Your task to perform on an android device: Add apple airpods pro to the cart on walmart.com, then select checkout. Image 0: 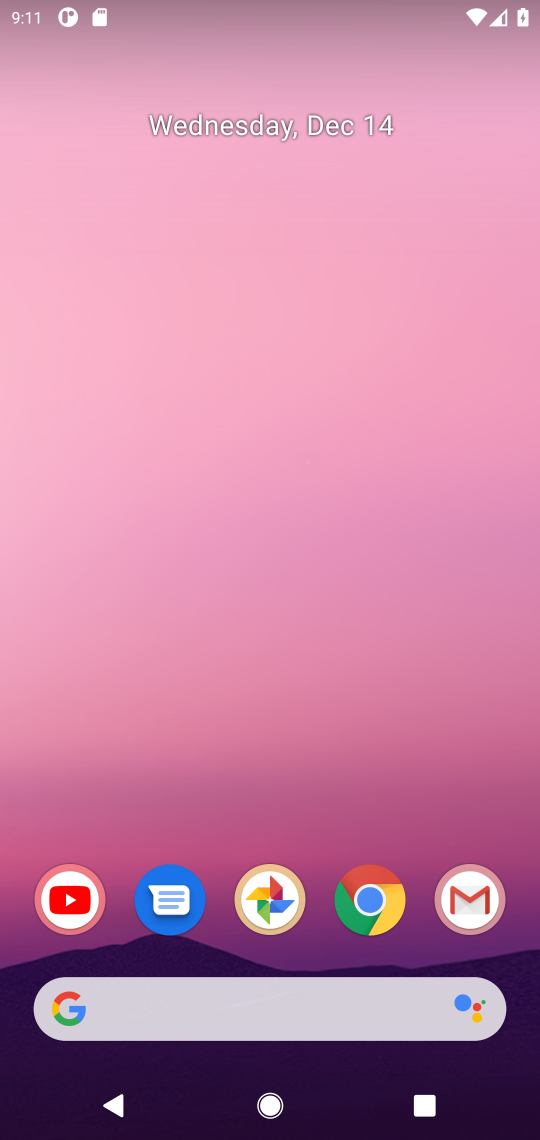
Step 0: click (225, 1023)
Your task to perform on an android device: Add apple airpods pro to the cart on walmart.com, then select checkout. Image 1: 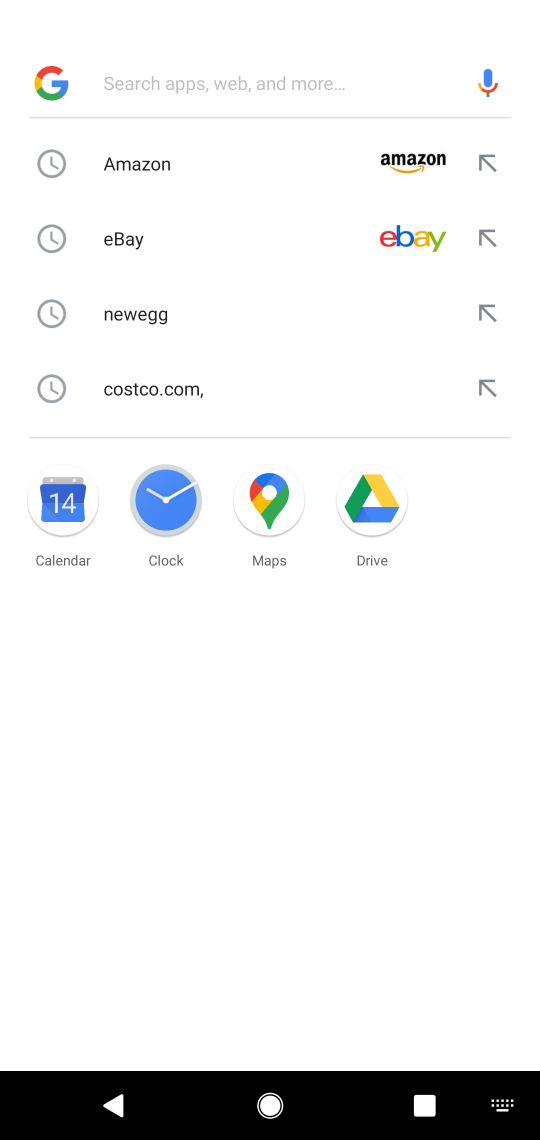
Step 1: type "walmart.com,"
Your task to perform on an android device: Add apple airpods pro to the cart on walmart.com, then select checkout. Image 2: 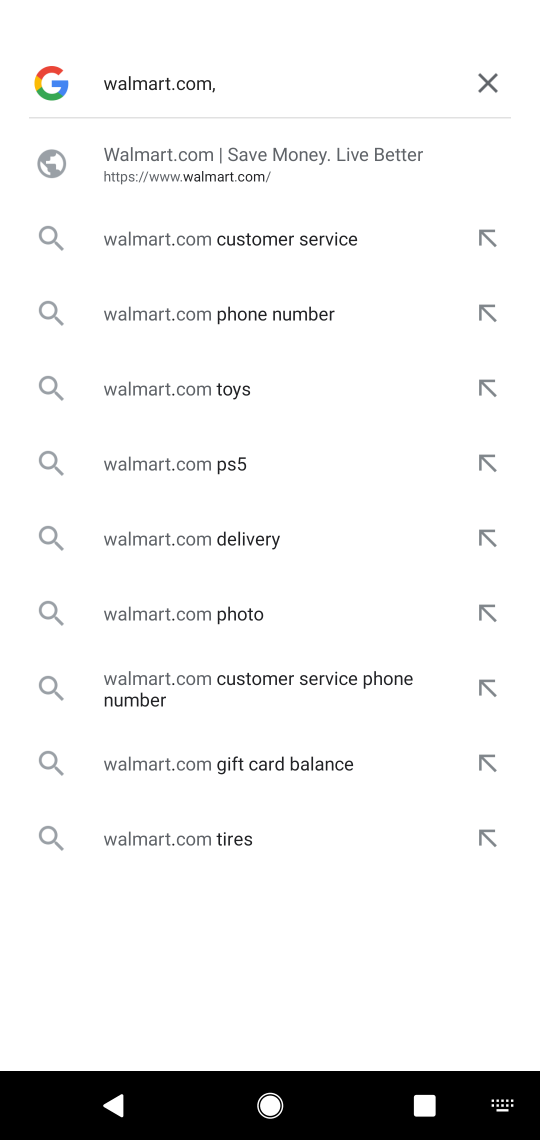
Step 2: type ""
Your task to perform on an android device: Add apple airpods pro to the cart on walmart.com, then select checkout. Image 3: 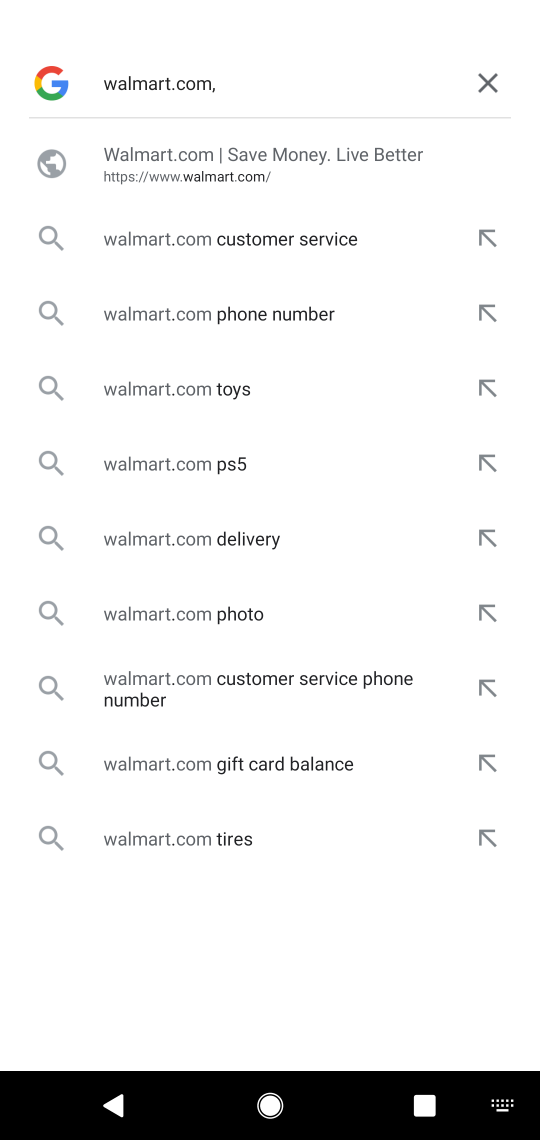
Step 3: click (228, 171)
Your task to perform on an android device: Add apple airpods pro to the cart on walmart.com, then select checkout. Image 4: 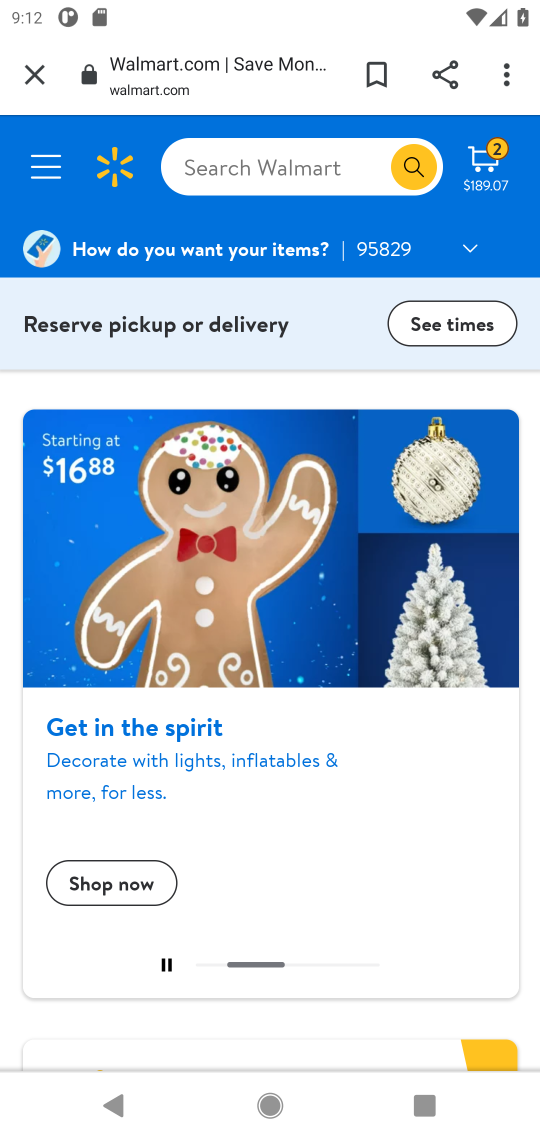
Step 4: click (240, 158)
Your task to perform on an android device: Add apple airpods pro to the cart on walmart.com, then select checkout. Image 5: 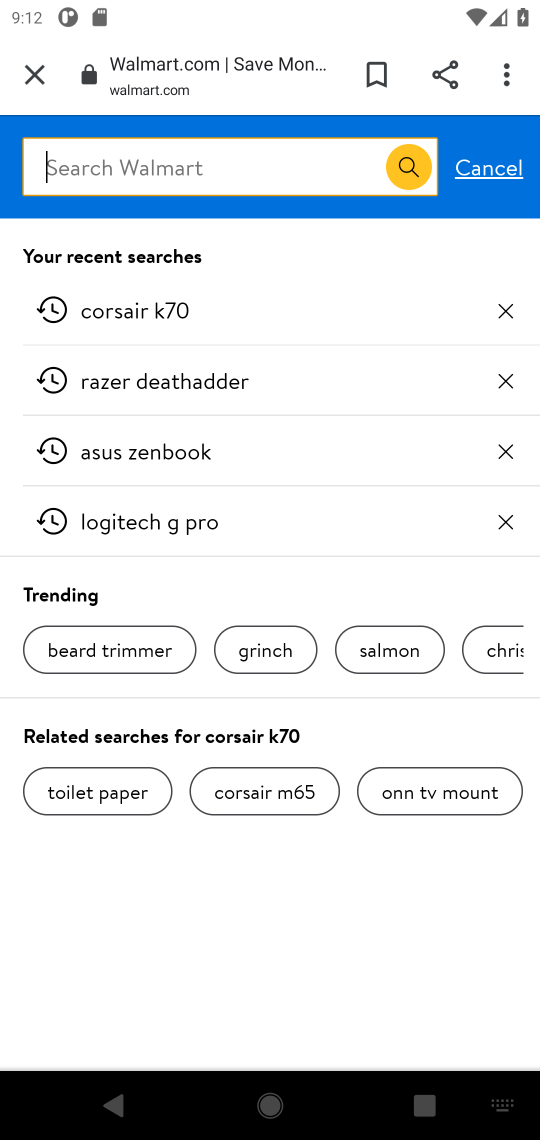
Step 5: type "apple airpods pro"
Your task to perform on an android device: Add apple airpods pro to the cart on walmart.com, then select checkout. Image 6: 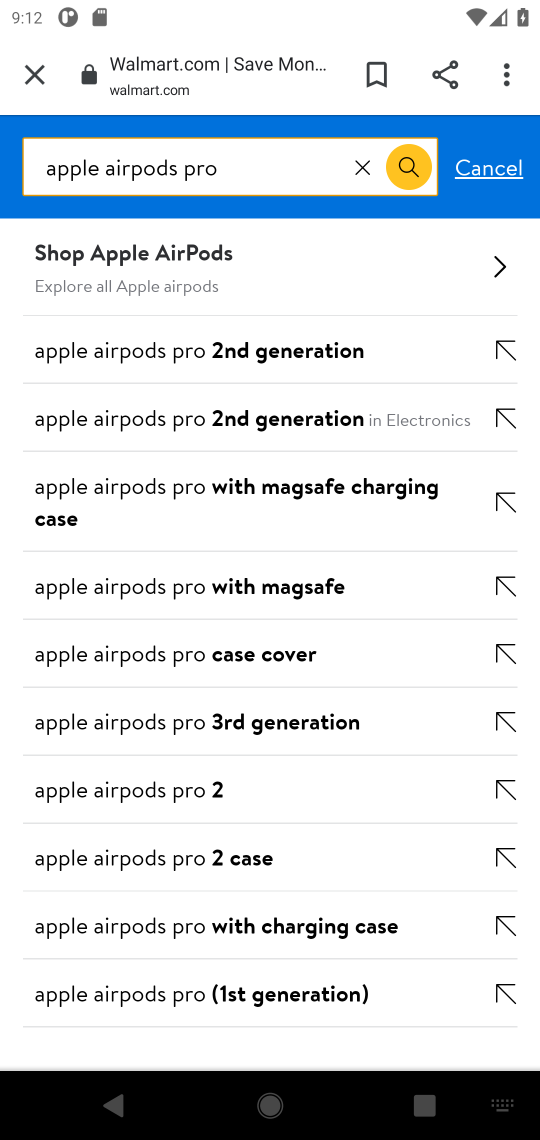
Step 6: click (430, 163)
Your task to perform on an android device: Add apple airpods pro to the cart on walmart.com, then select checkout. Image 7: 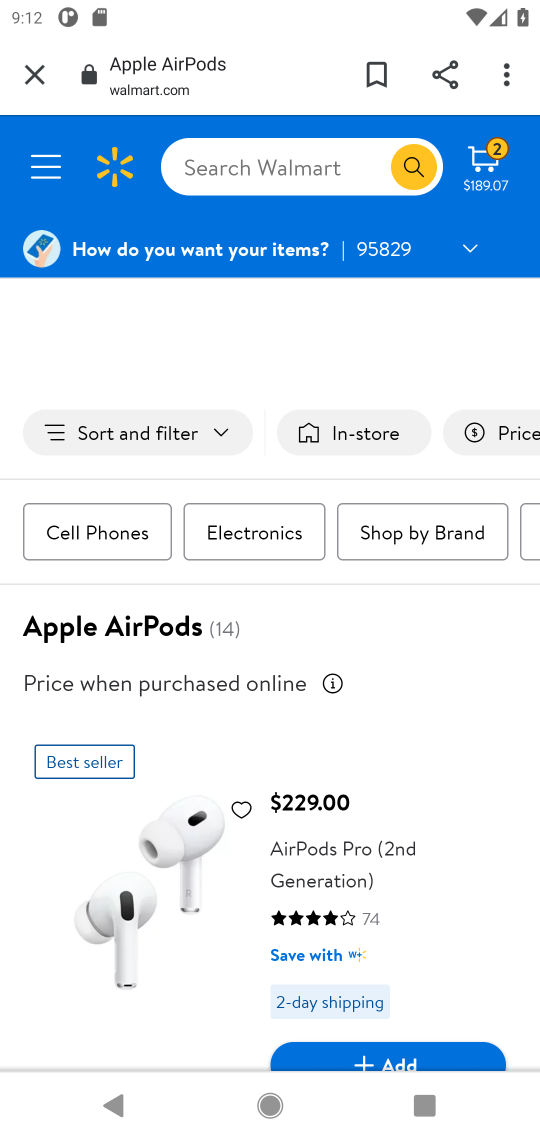
Step 7: drag from (412, 953) to (295, 447)
Your task to perform on an android device: Add apple airpods pro to the cart on walmart.com, then select checkout. Image 8: 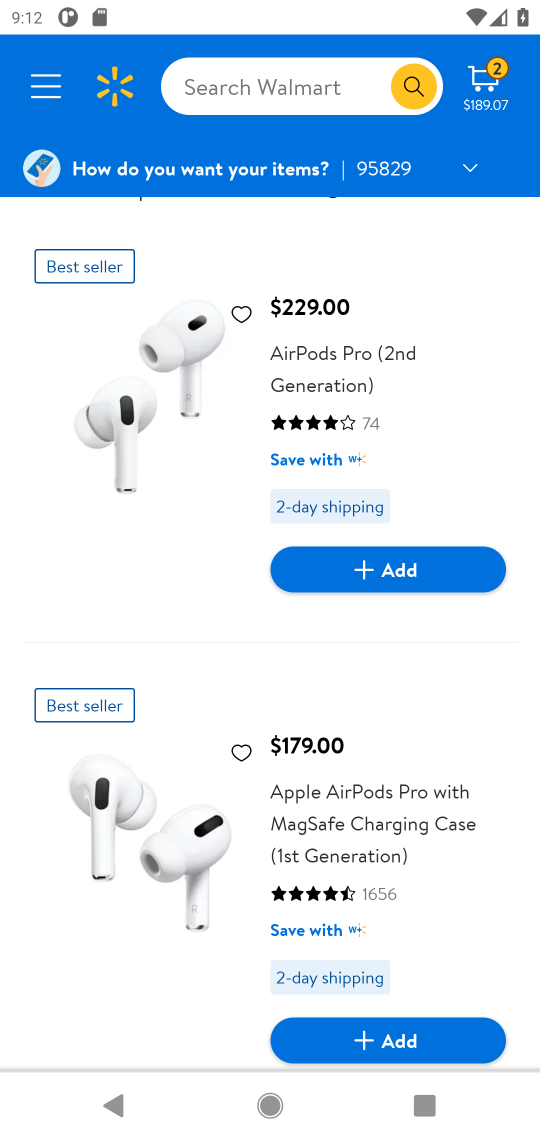
Step 8: click (367, 577)
Your task to perform on an android device: Add apple airpods pro to the cart on walmart.com, then select checkout. Image 9: 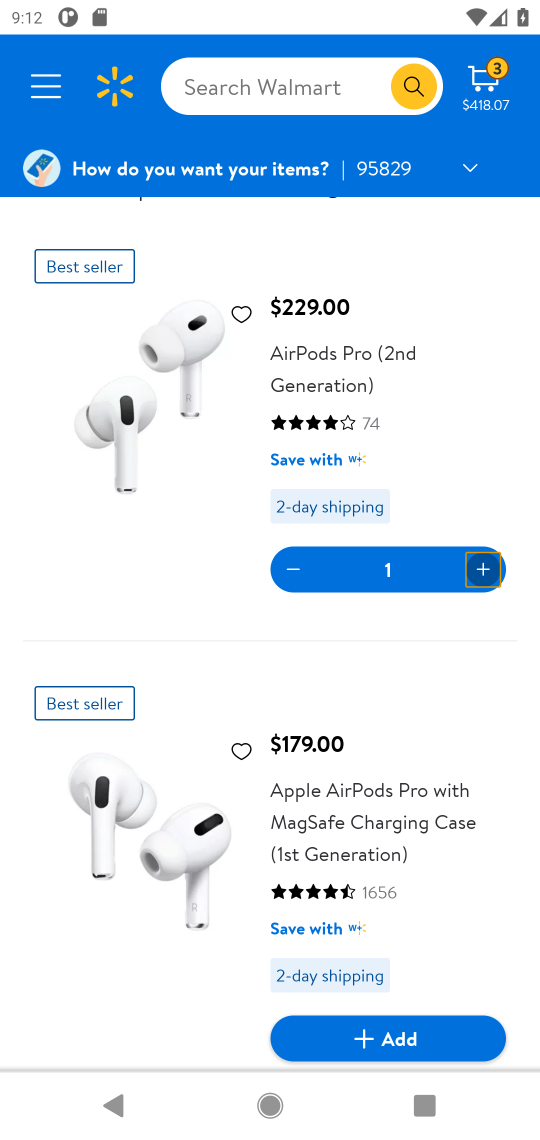
Step 9: click (465, 79)
Your task to perform on an android device: Add apple airpods pro to the cart on walmart.com, then select checkout. Image 10: 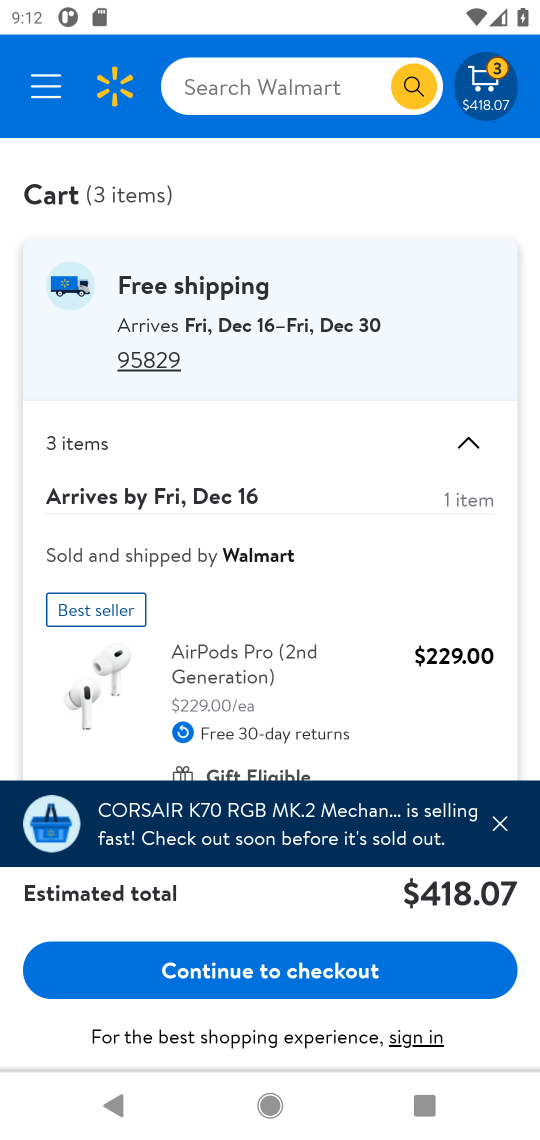
Step 10: click (268, 991)
Your task to perform on an android device: Add apple airpods pro to the cart on walmart.com, then select checkout. Image 11: 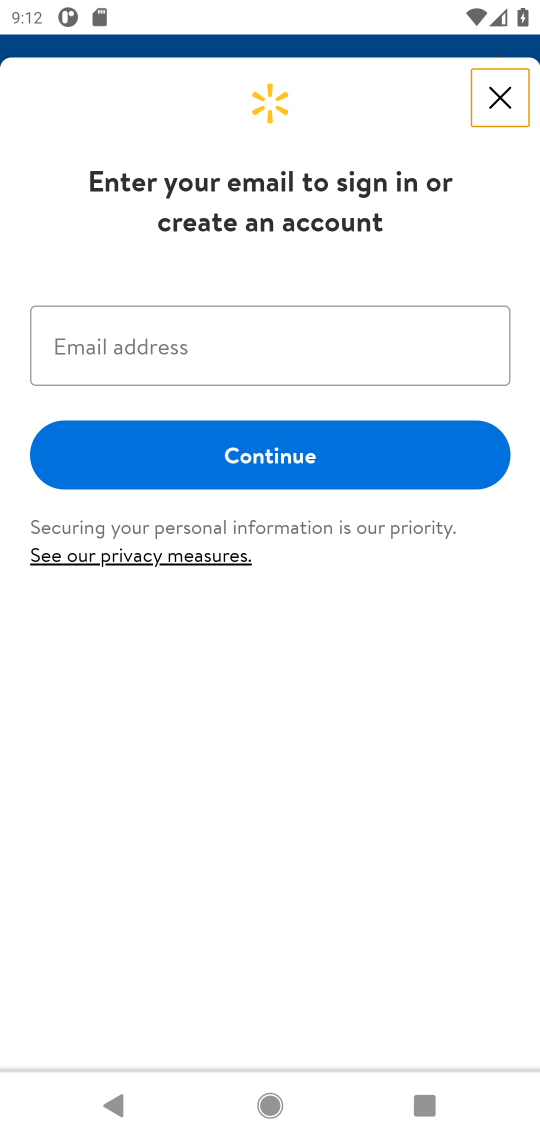
Step 11: task complete